Your task to perform on an android device: turn off location history Image 0: 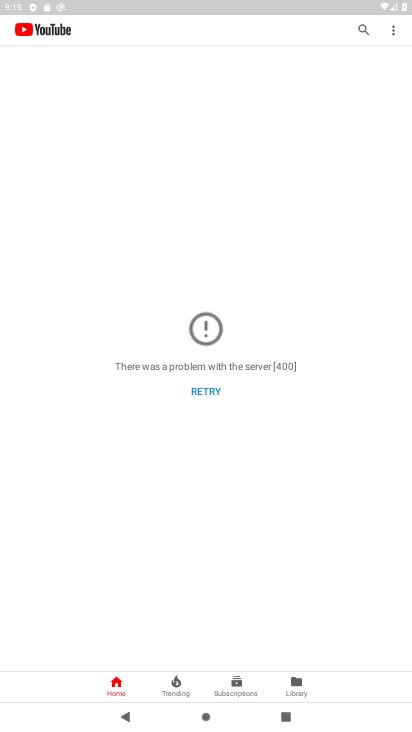
Step 0: press home button
Your task to perform on an android device: turn off location history Image 1: 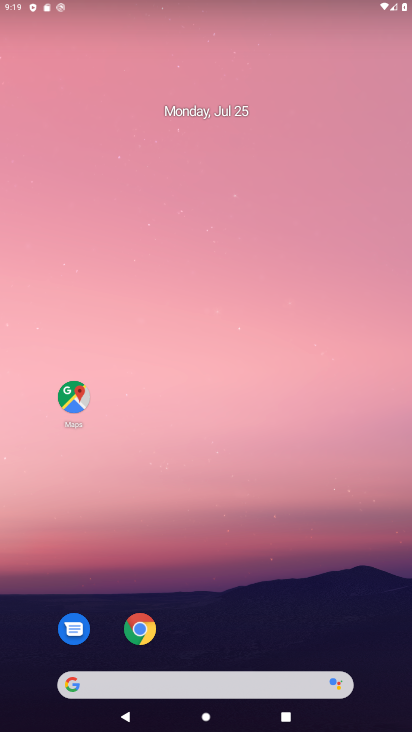
Step 1: drag from (360, 598) to (324, 151)
Your task to perform on an android device: turn off location history Image 2: 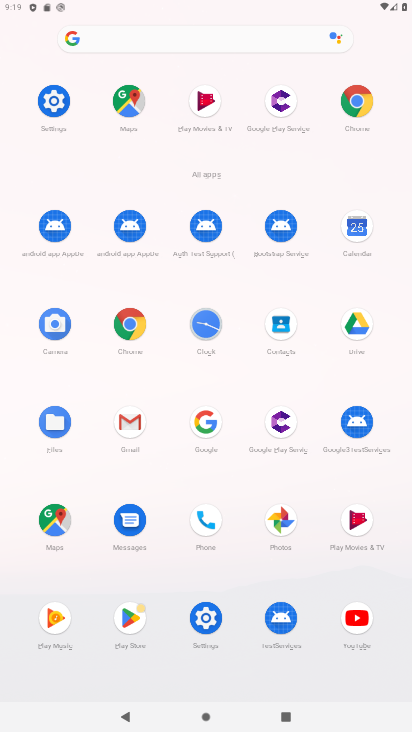
Step 2: click (59, 94)
Your task to perform on an android device: turn off location history Image 3: 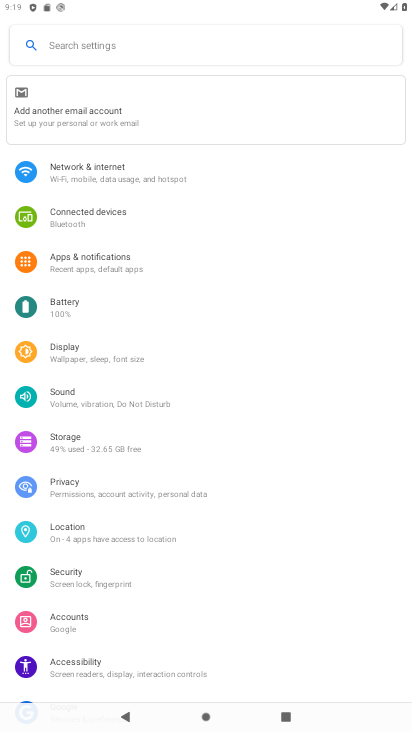
Step 3: click (78, 521)
Your task to perform on an android device: turn off location history Image 4: 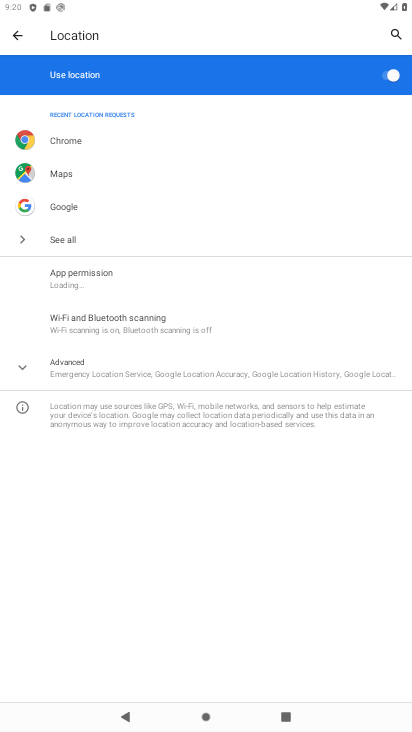
Step 4: click (96, 371)
Your task to perform on an android device: turn off location history Image 5: 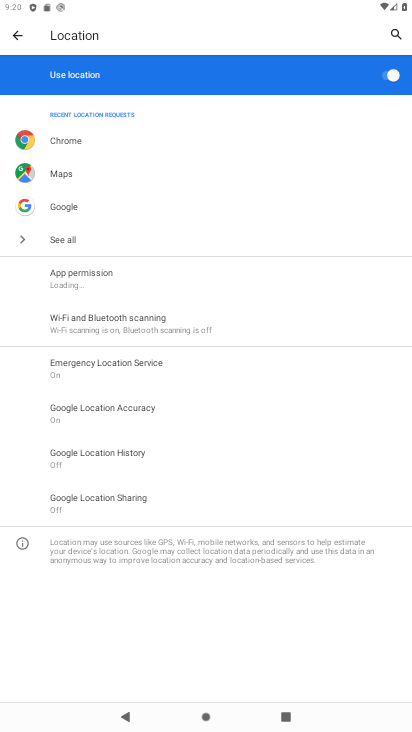
Step 5: click (119, 451)
Your task to perform on an android device: turn off location history Image 6: 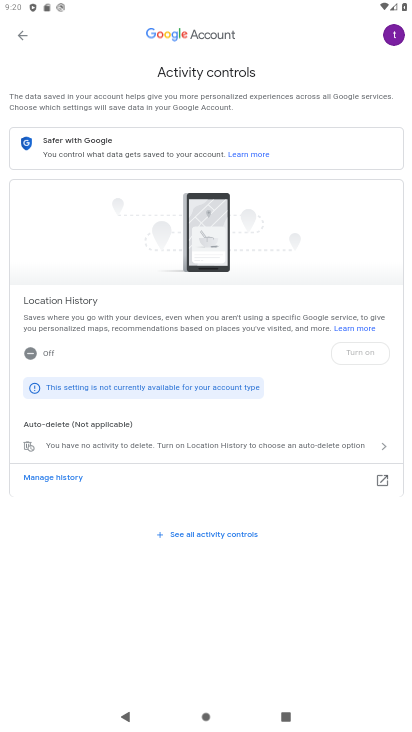
Step 6: task complete